Your task to perform on an android device: snooze an email in the gmail app Image 0: 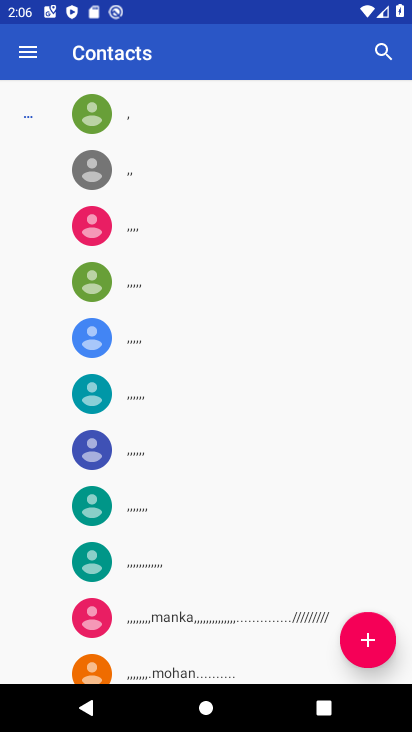
Step 0: press home button
Your task to perform on an android device: snooze an email in the gmail app Image 1: 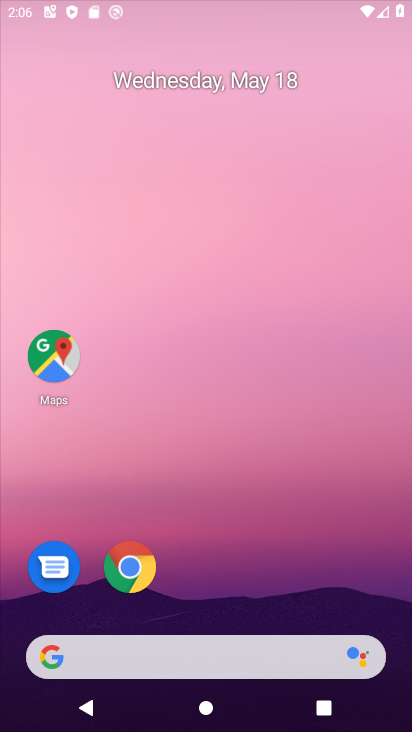
Step 1: drag from (214, 545) to (260, 247)
Your task to perform on an android device: snooze an email in the gmail app Image 2: 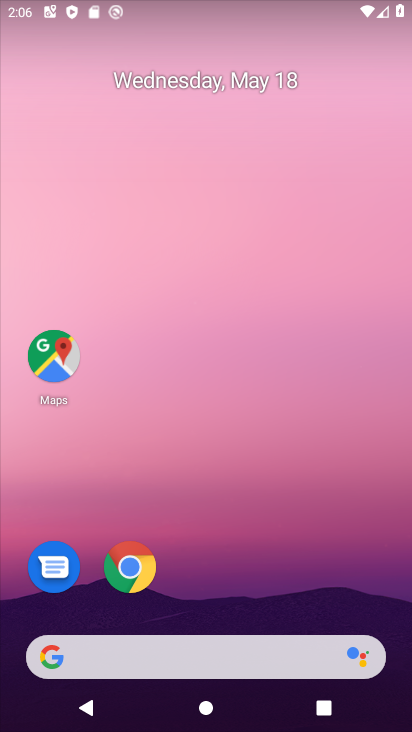
Step 2: drag from (222, 610) to (263, 240)
Your task to perform on an android device: snooze an email in the gmail app Image 3: 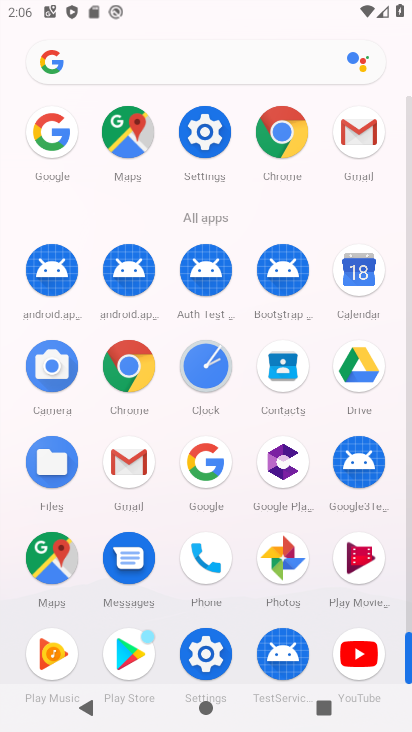
Step 3: click (367, 123)
Your task to perform on an android device: snooze an email in the gmail app Image 4: 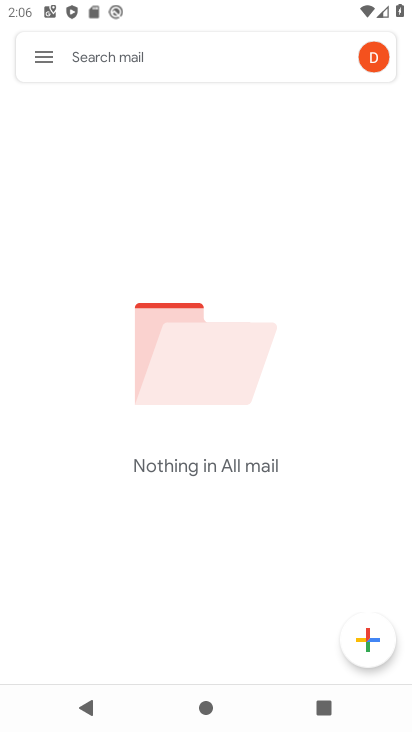
Step 4: click (44, 56)
Your task to perform on an android device: snooze an email in the gmail app Image 5: 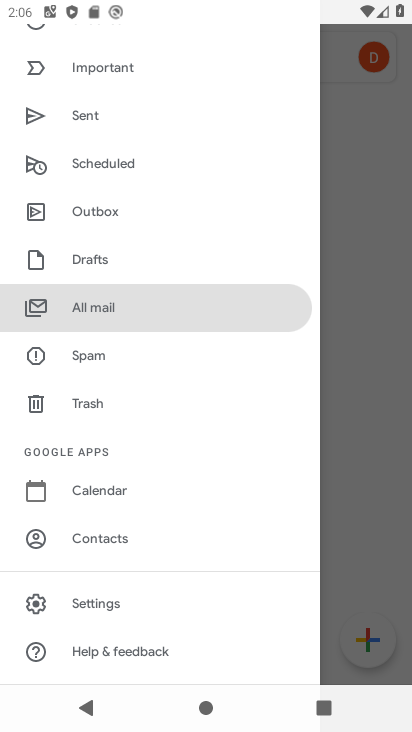
Step 5: drag from (139, 139) to (119, 533)
Your task to perform on an android device: snooze an email in the gmail app Image 6: 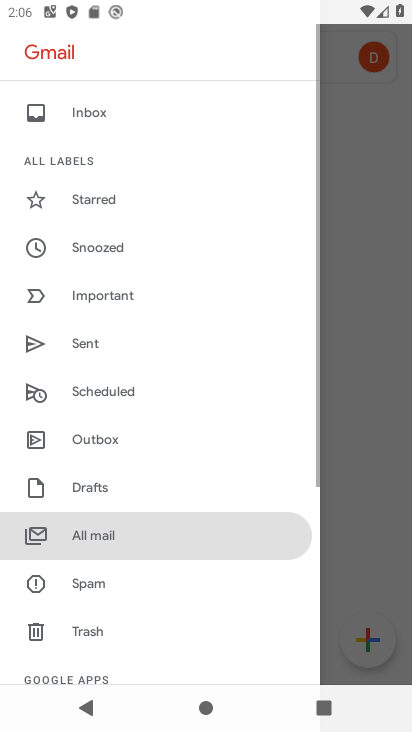
Step 6: click (119, 246)
Your task to perform on an android device: snooze an email in the gmail app Image 7: 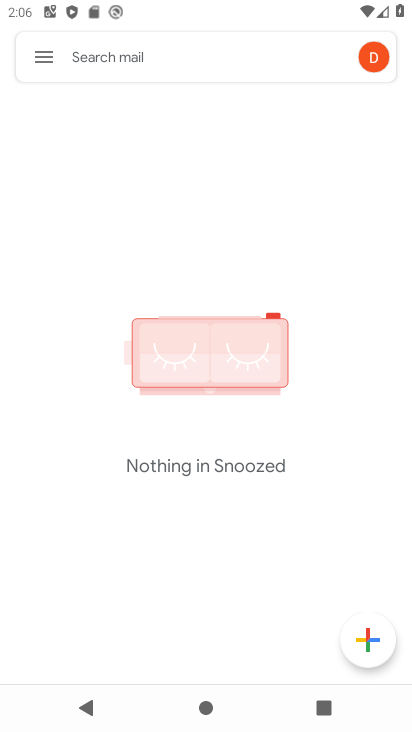
Step 7: task complete